Your task to perform on an android device: How much does a 3 bedroom apartment rent for in Chicago? Image 0: 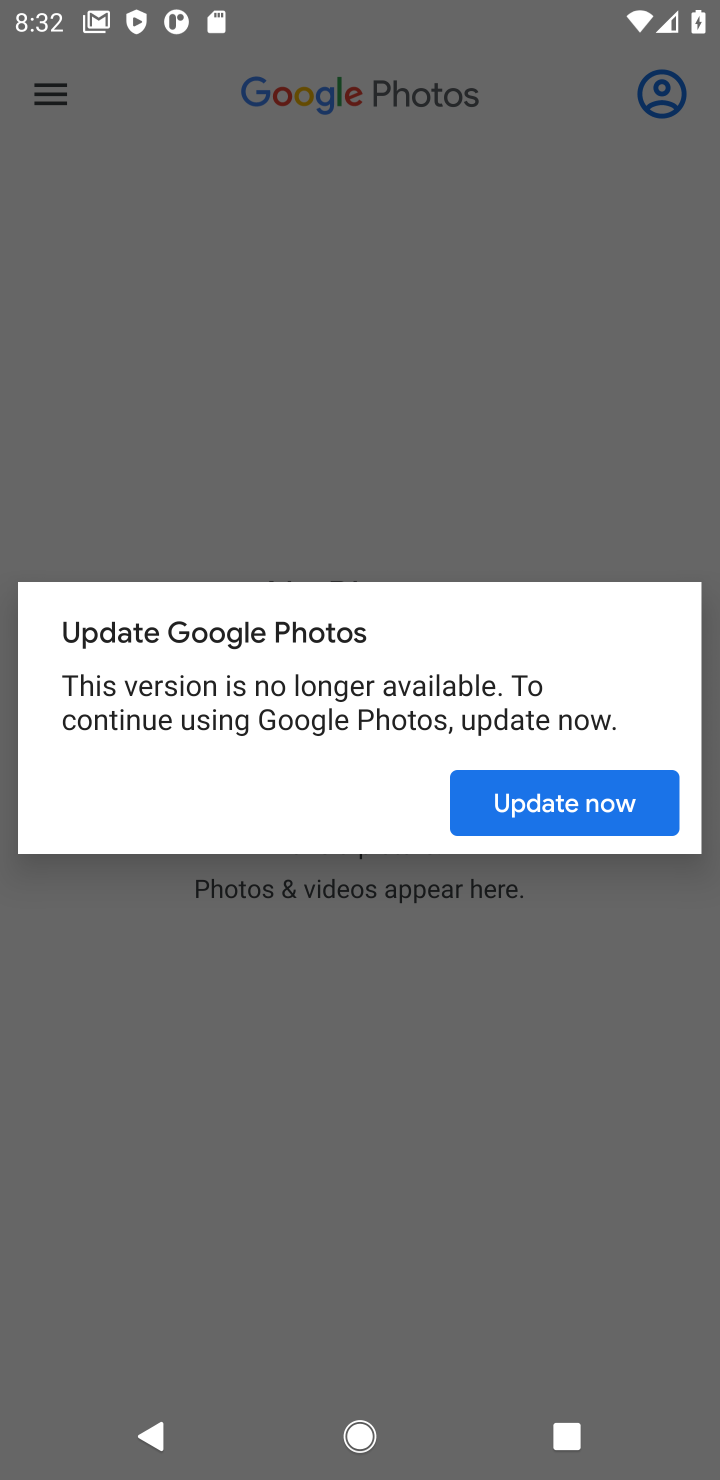
Step 0: press home button
Your task to perform on an android device: How much does a 3 bedroom apartment rent for in Chicago? Image 1: 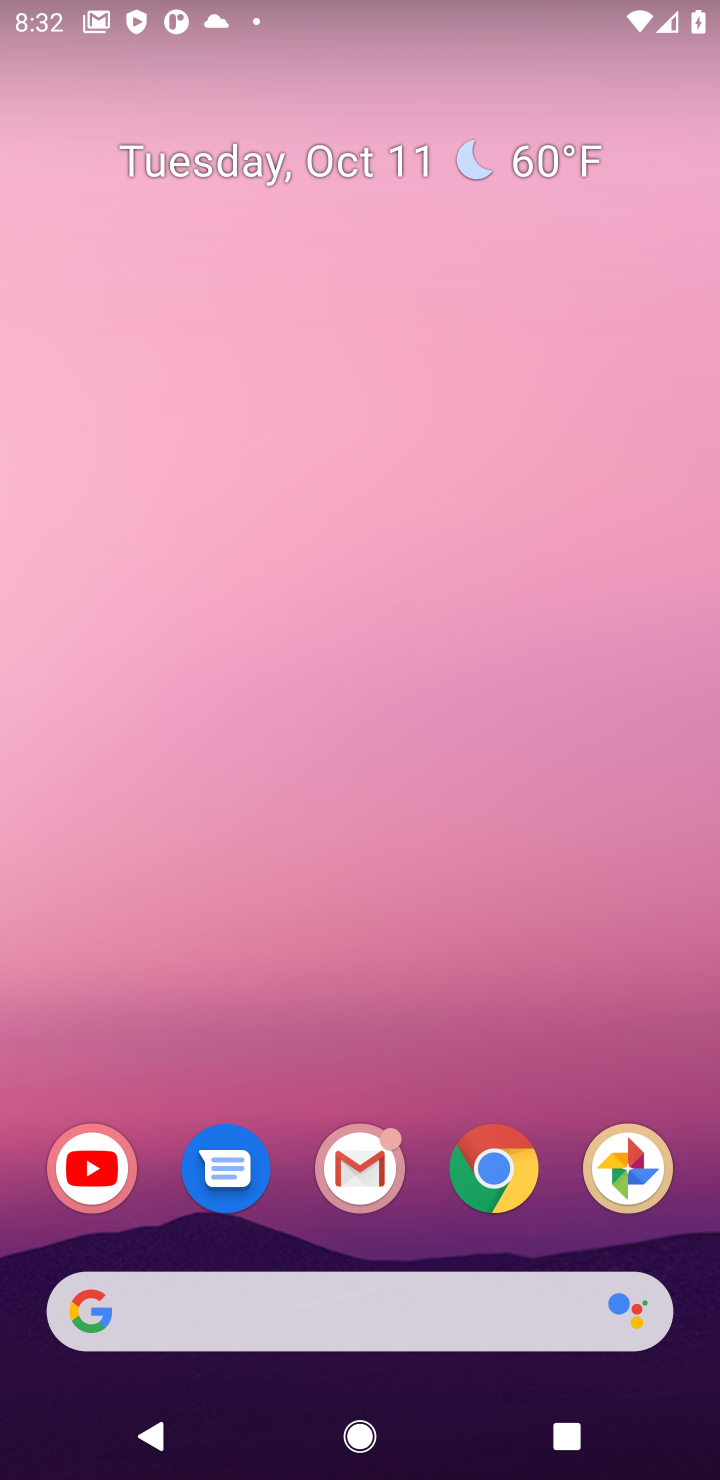
Step 1: click (502, 1166)
Your task to perform on an android device: How much does a 3 bedroom apartment rent for in Chicago? Image 2: 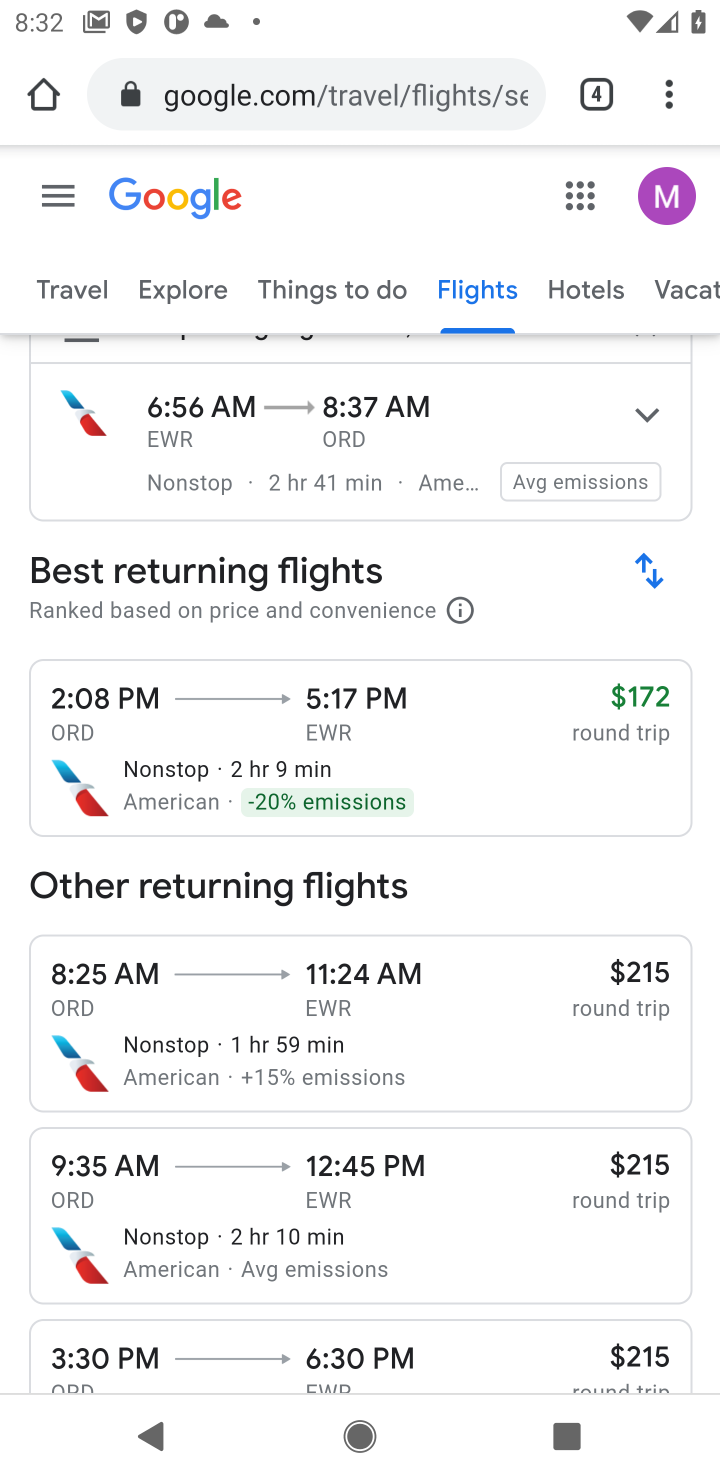
Step 2: click (346, 89)
Your task to perform on an android device: How much does a 3 bedroom apartment rent for in Chicago? Image 3: 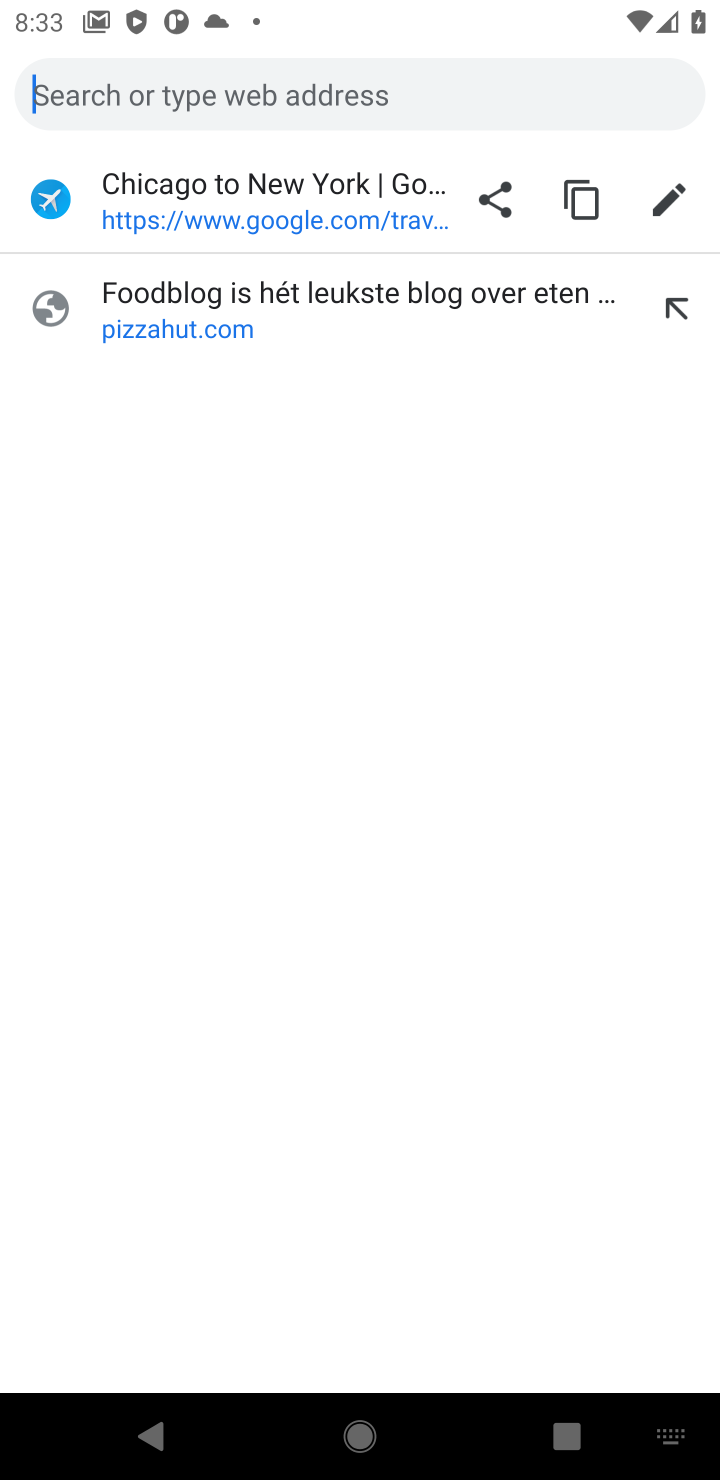
Step 3: type "3 bed room apartment rent for in chicago"
Your task to perform on an android device: How much does a 3 bedroom apartment rent for in Chicago? Image 4: 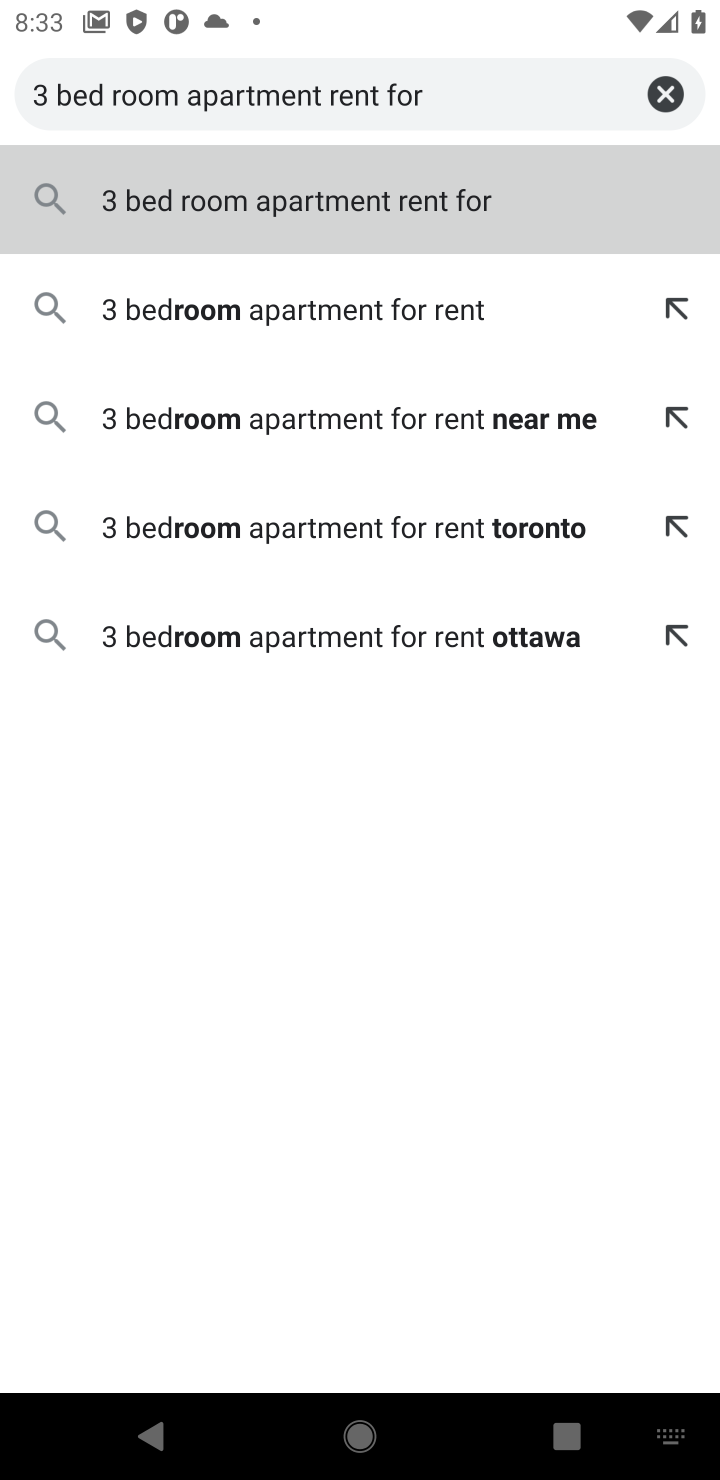
Step 4: click (385, 308)
Your task to perform on an android device: How much does a 3 bedroom apartment rent for in Chicago? Image 5: 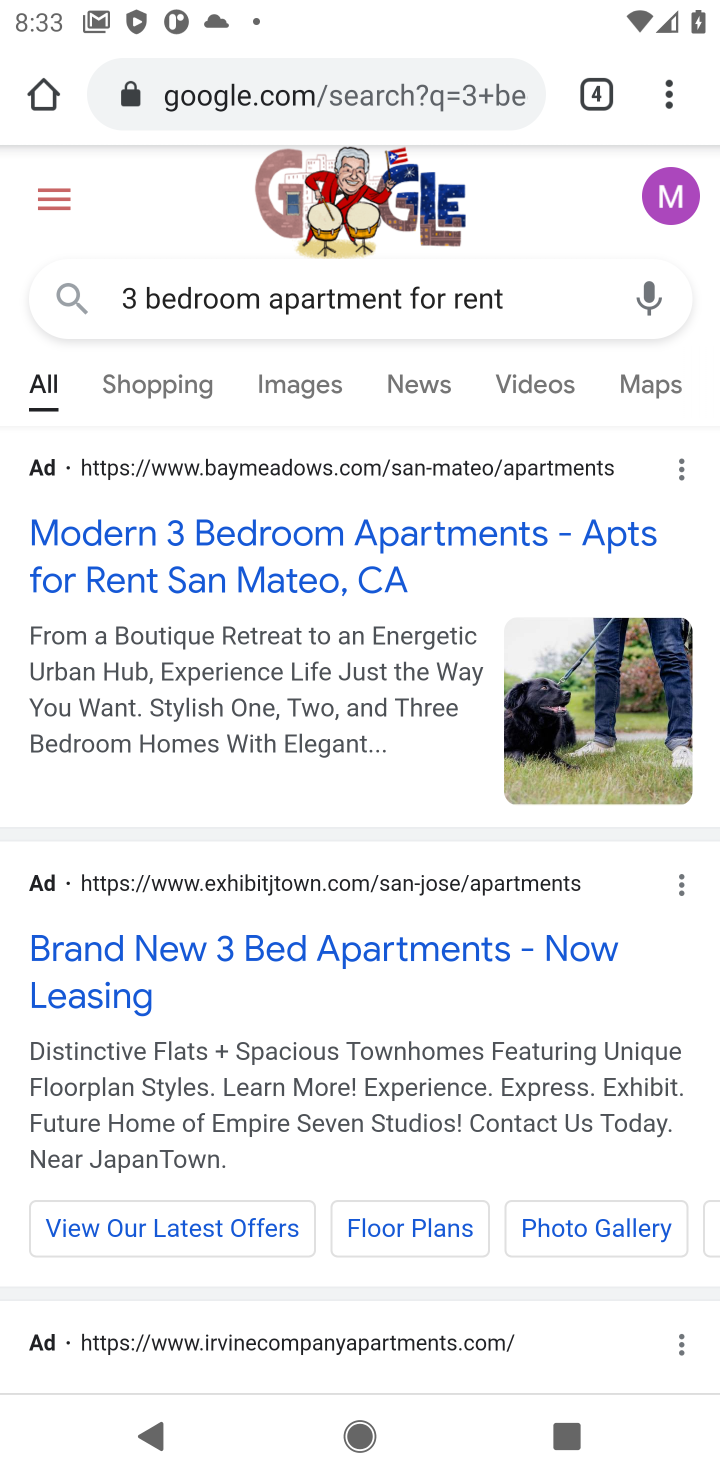
Step 5: drag from (430, 948) to (465, 81)
Your task to perform on an android device: How much does a 3 bedroom apartment rent for in Chicago? Image 6: 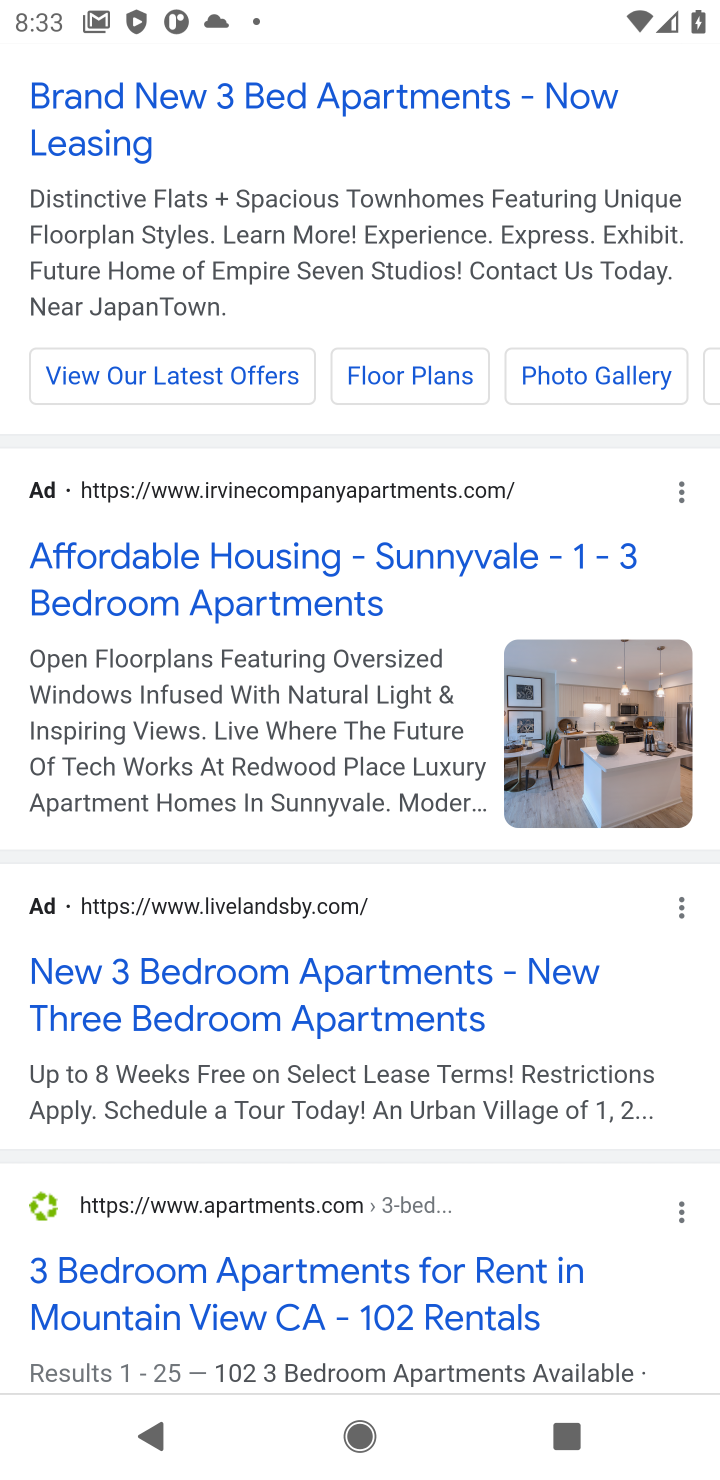
Step 6: click (258, 977)
Your task to perform on an android device: How much does a 3 bedroom apartment rent for in Chicago? Image 7: 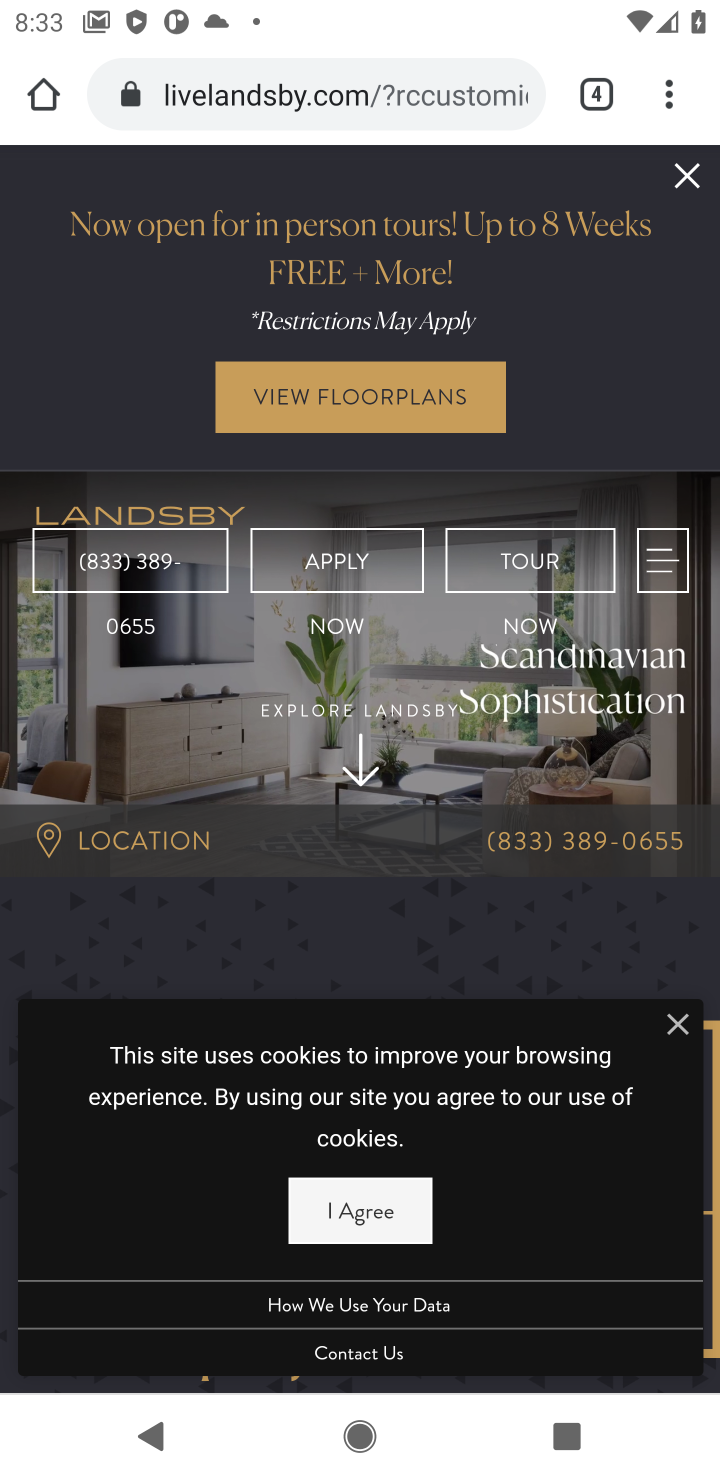
Step 7: click (674, 1041)
Your task to perform on an android device: How much does a 3 bedroom apartment rent for in Chicago? Image 8: 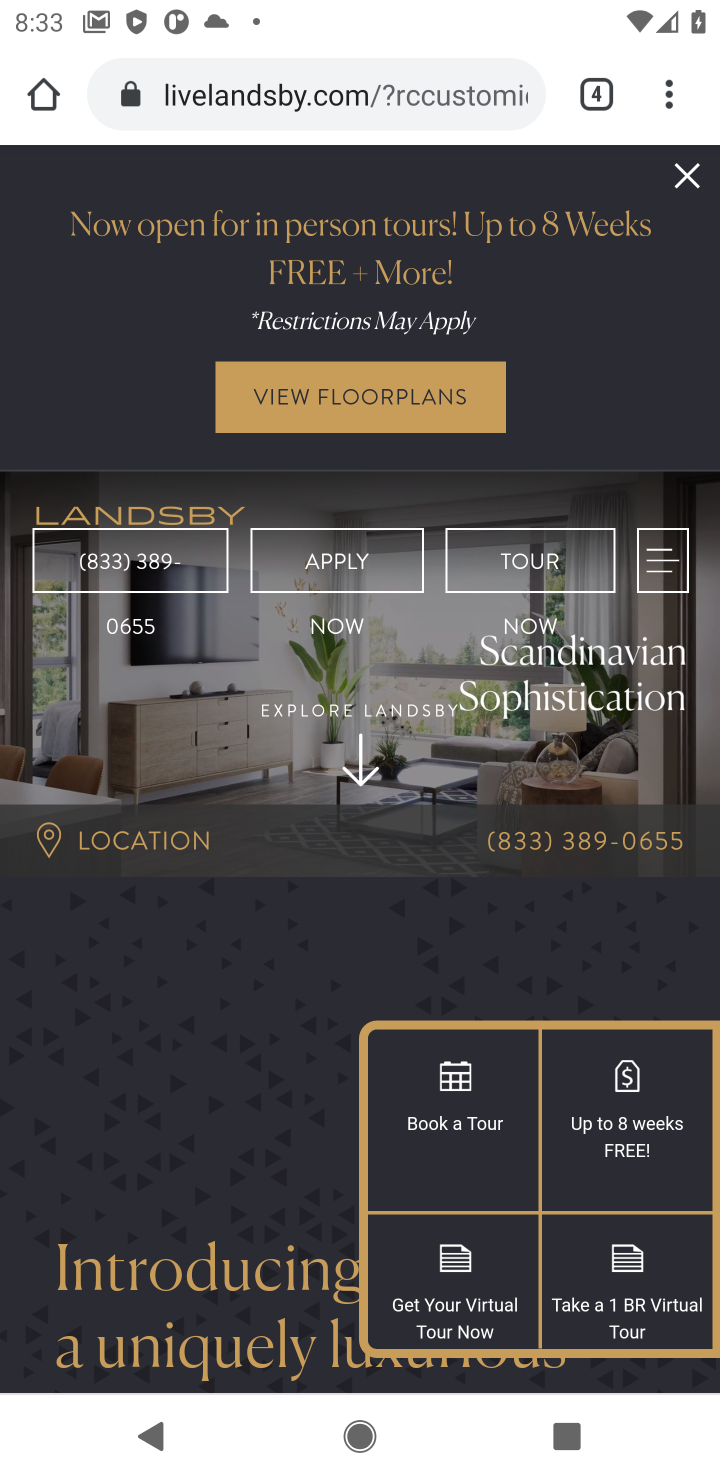
Step 8: drag from (259, 757) to (341, 313)
Your task to perform on an android device: How much does a 3 bedroom apartment rent for in Chicago? Image 9: 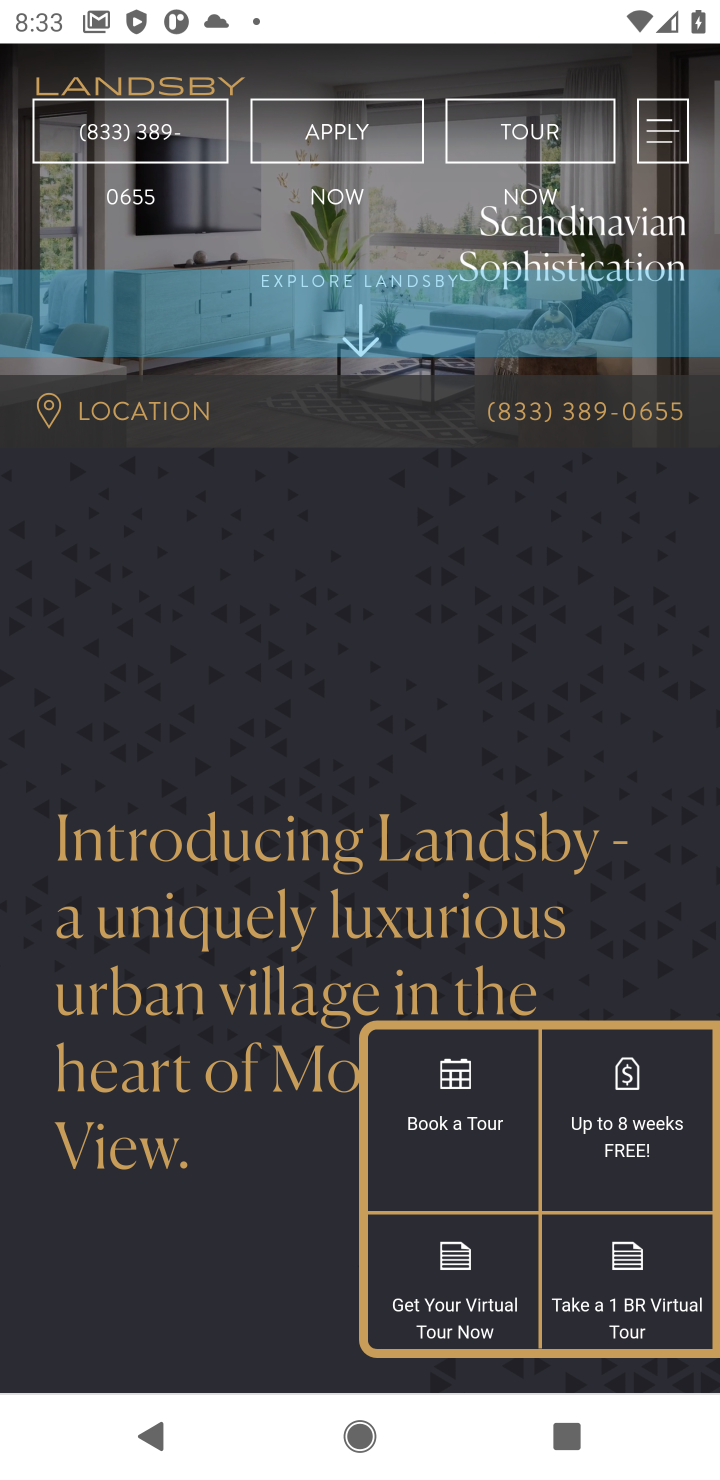
Step 9: click (694, 178)
Your task to perform on an android device: How much does a 3 bedroom apartment rent for in Chicago? Image 10: 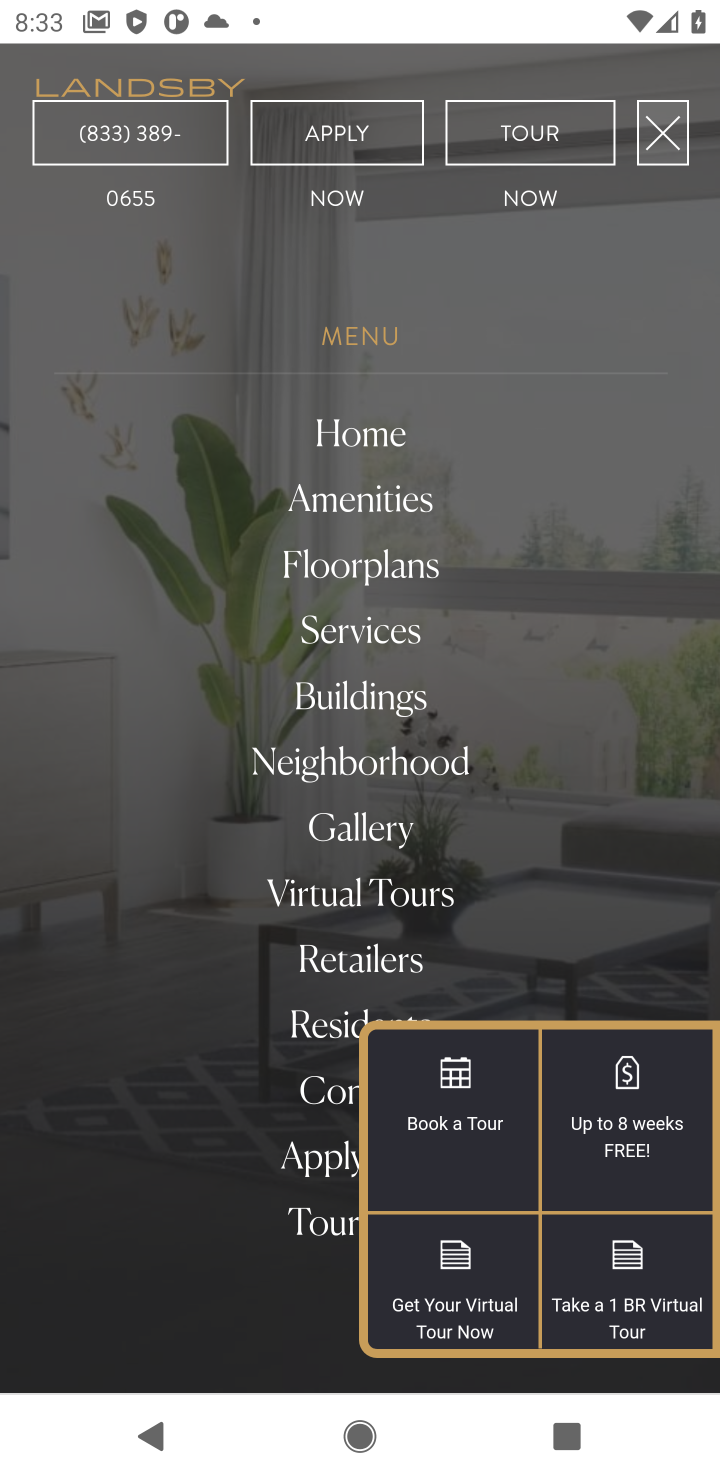
Step 10: drag from (257, 967) to (322, 398)
Your task to perform on an android device: How much does a 3 bedroom apartment rent for in Chicago? Image 11: 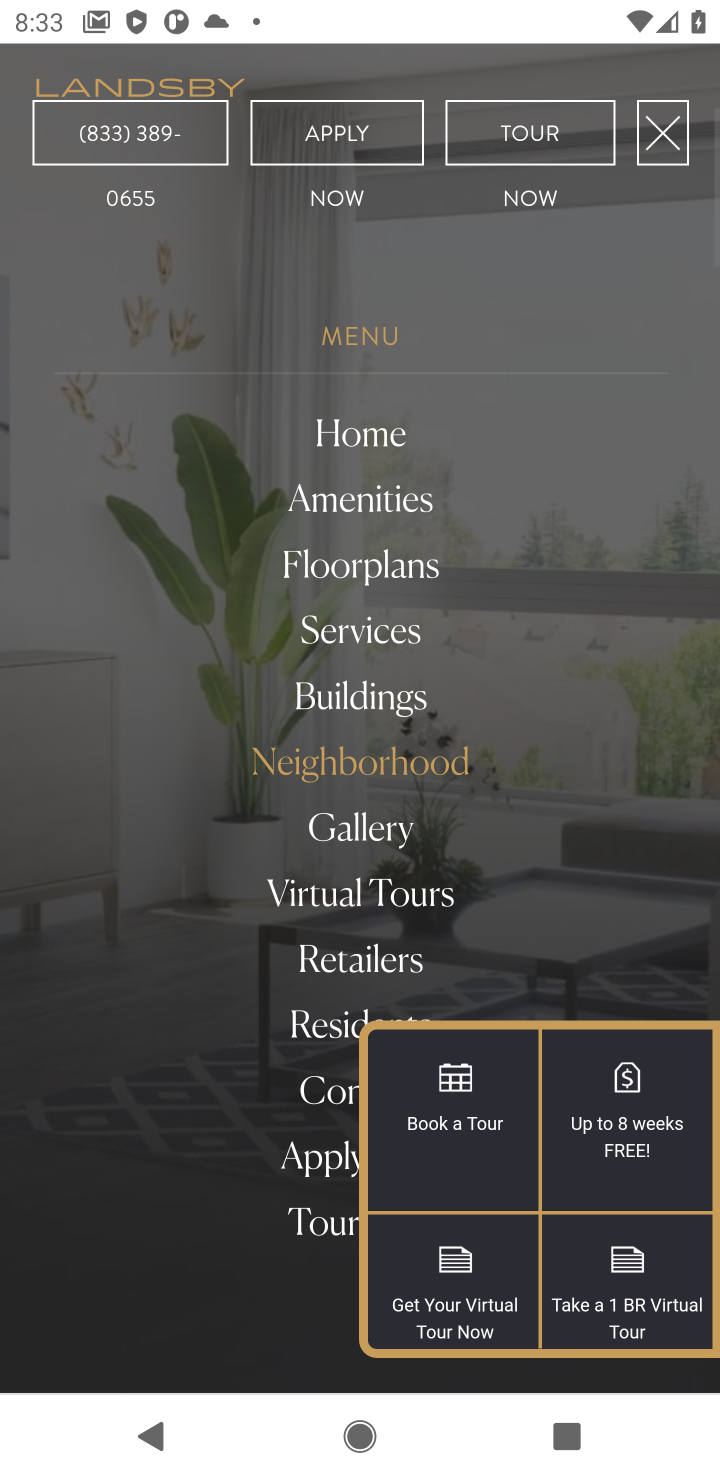
Step 11: drag from (679, 693) to (679, 420)
Your task to perform on an android device: How much does a 3 bedroom apartment rent for in Chicago? Image 12: 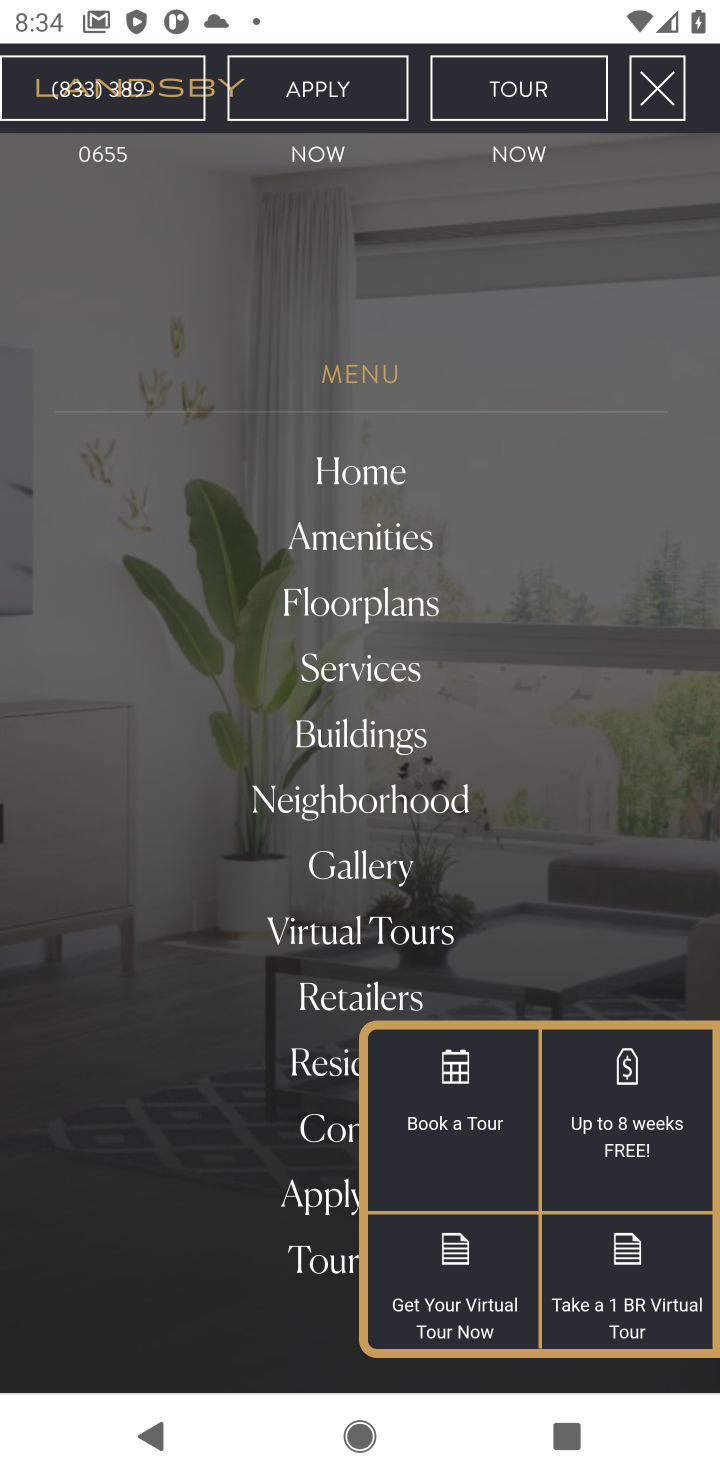
Step 12: drag from (2, 974) to (41, 445)
Your task to perform on an android device: How much does a 3 bedroom apartment rent for in Chicago? Image 13: 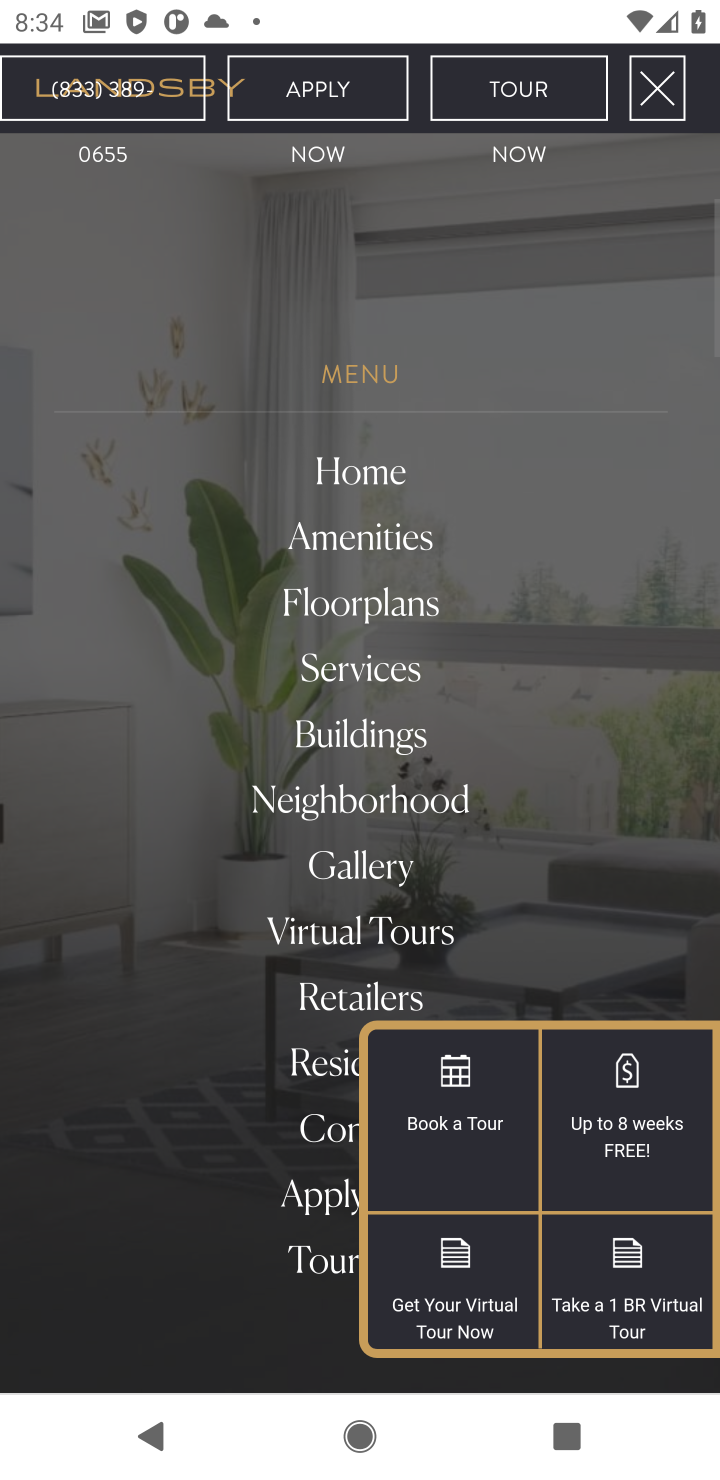
Step 13: click (411, 479)
Your task to perform on an android device: How much does a 3 bedroom apartment rent for in Chicago? Image 14: 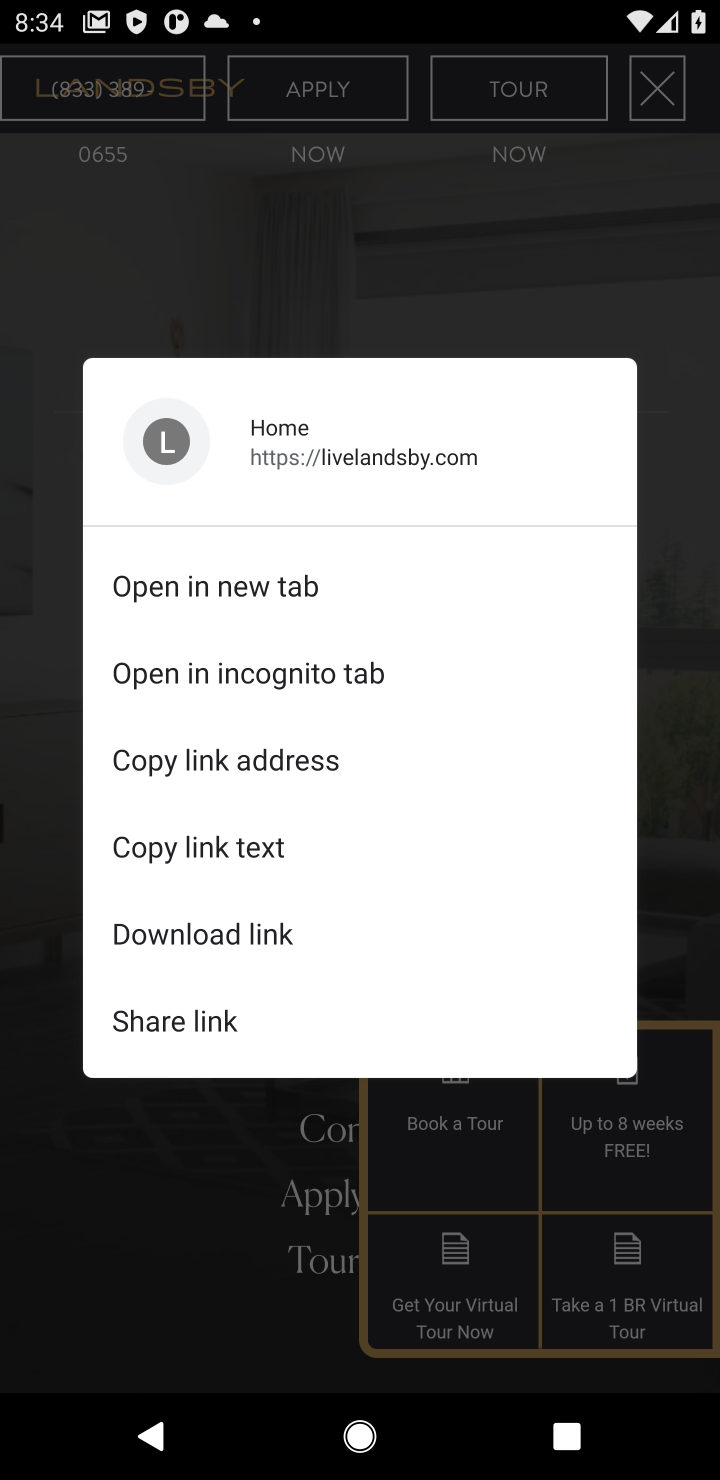
Step 14: click (268, 581)
Your task to perform on an android device: How much does a 3 bedroom apartment rent for in Chicago? Image 15: 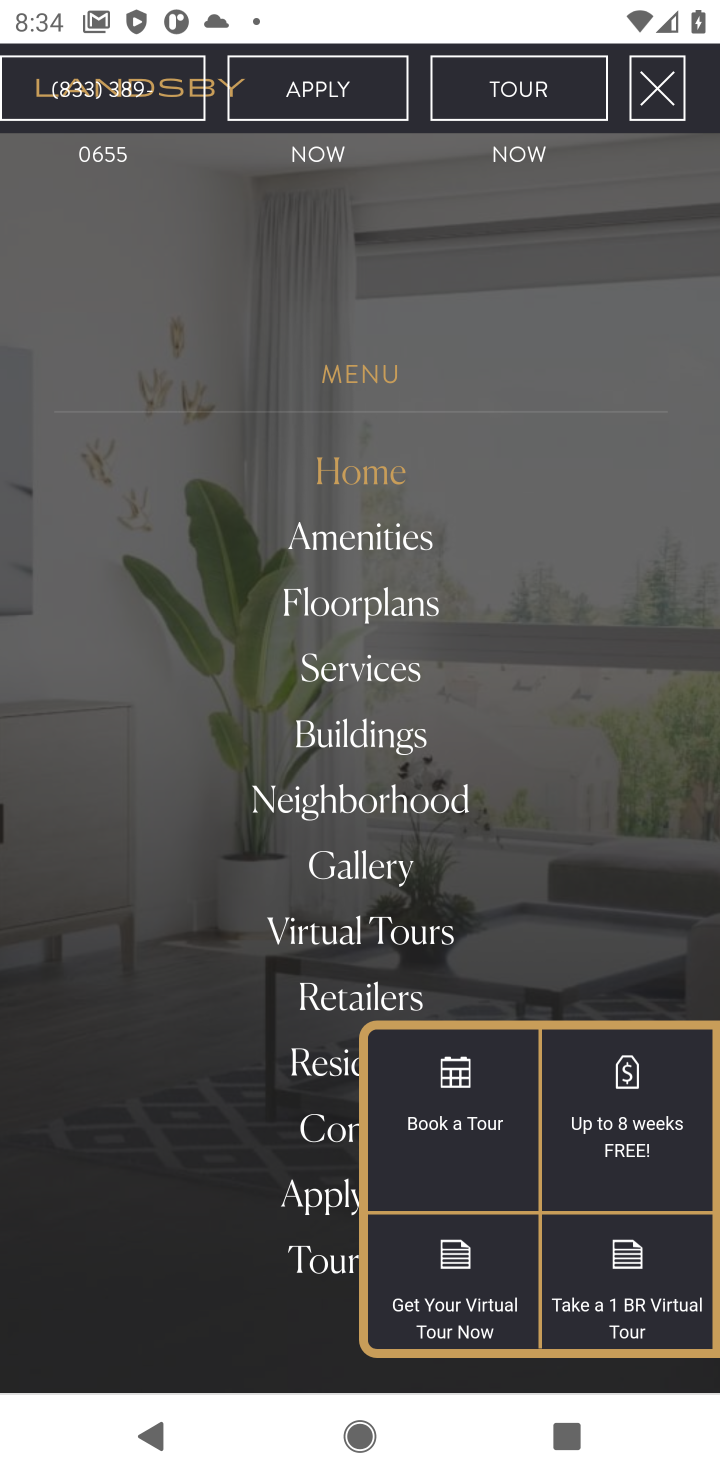
Step 15: click (643, 94)
Your task to perform on an android device: How much does a 3 bedroom apartment rent for in Chicago? Image 16: 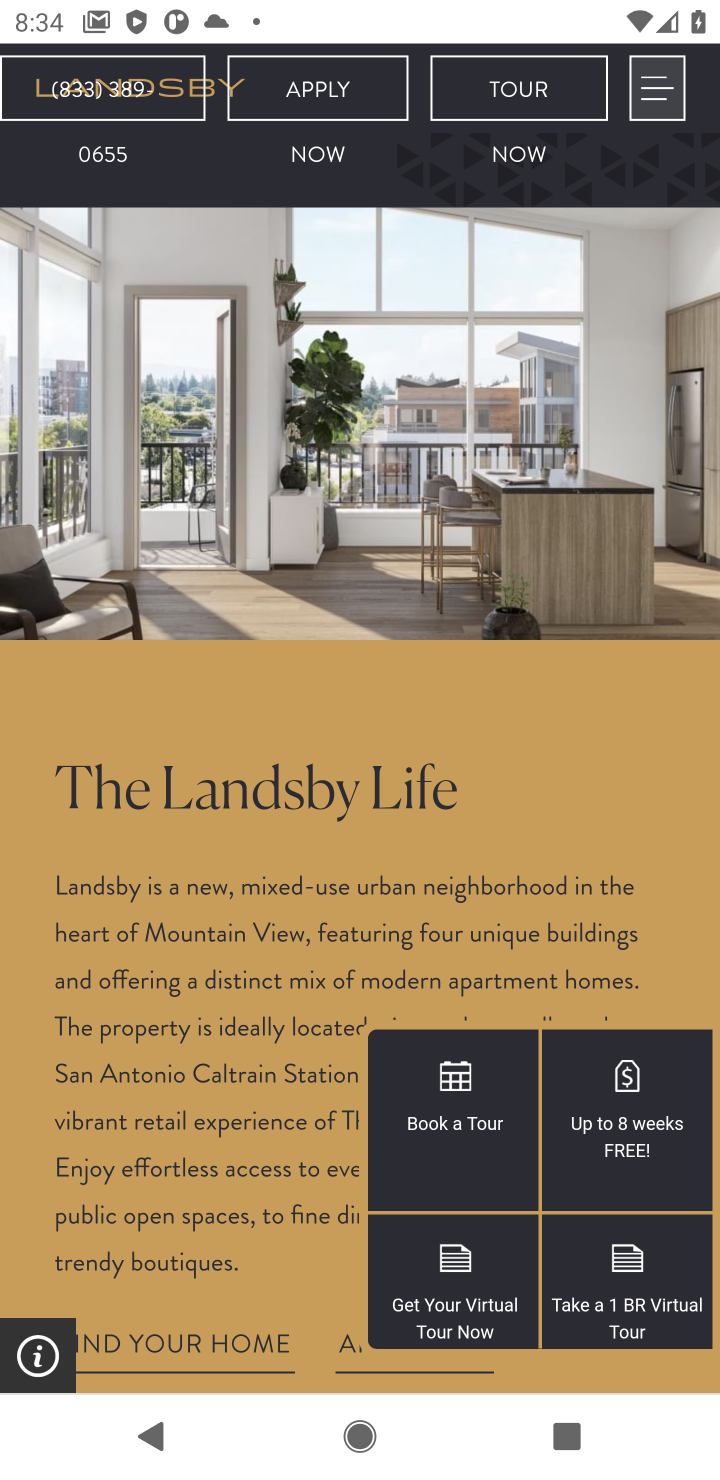
Step 16: press back button
Your task to perform on an android device: How much does a 3 bedroom apartment rent for in Chicago? Image 17: 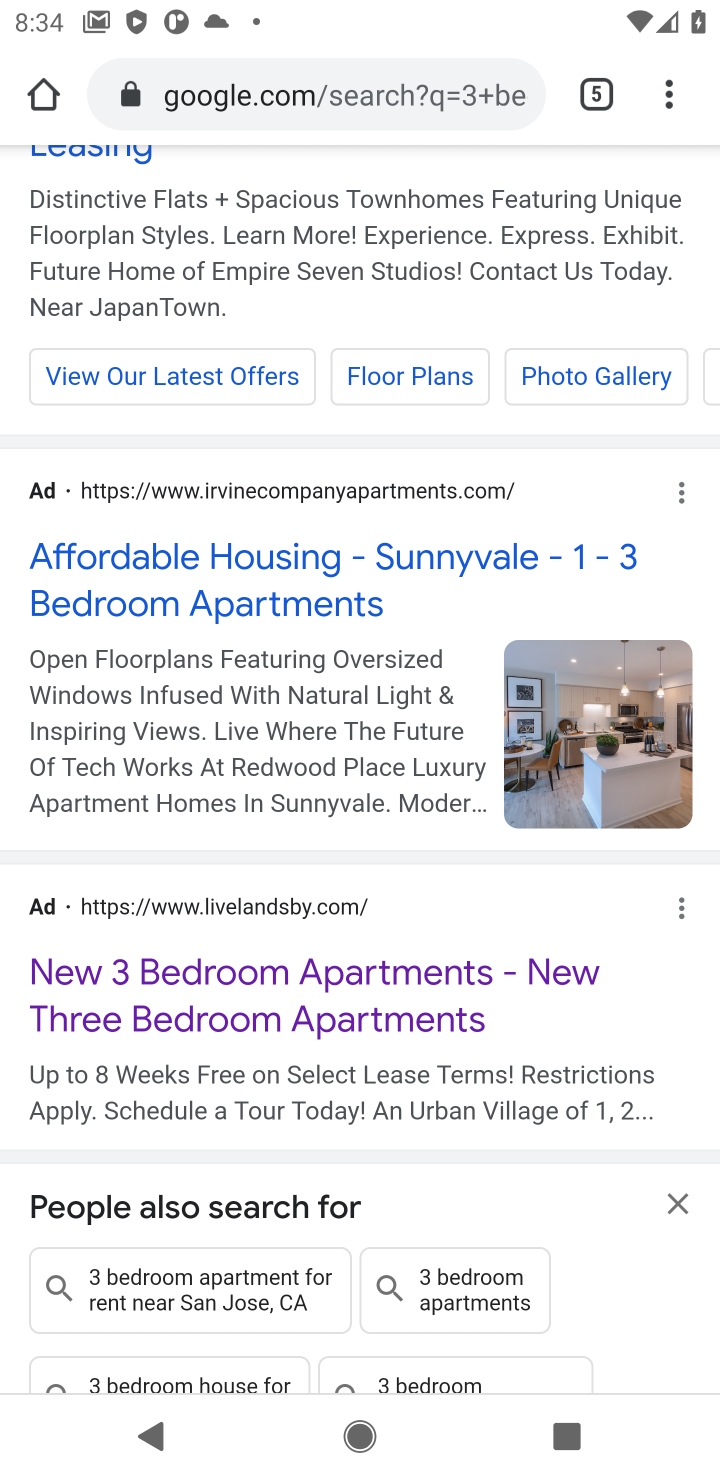
Step 17: click (278, 102)
Your task to perform on an android device: How much does a 3 bedroom apartment rent for in Chicago? Image 18: 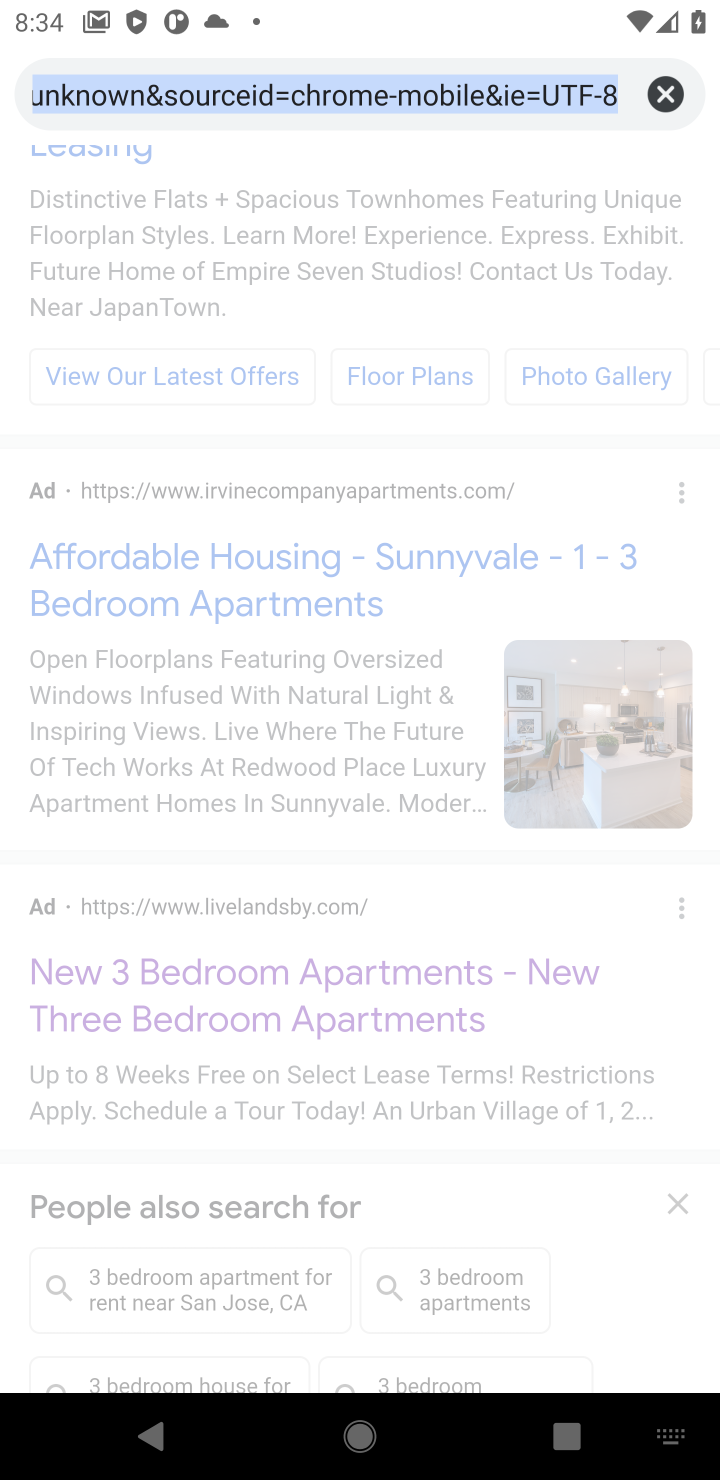
Step 18: type "3 bedroom apartment in chicago "
Your task to perform on an android device: How much does a 3 bedroom apartment rent for in Chicago? Image 19: 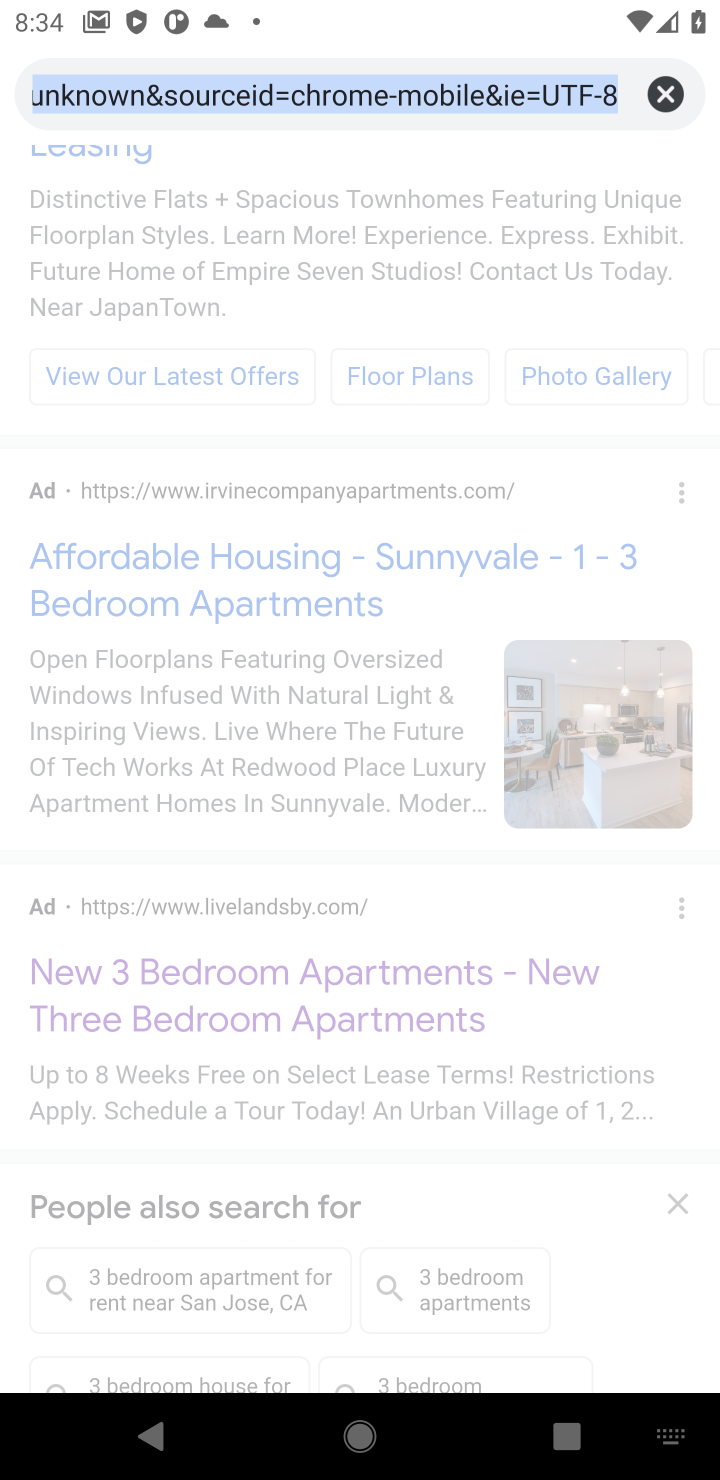
Step 19: click (662, 102)
Your task to perform on an android device: How much does a 3 bedroom apartment rent for in Chicago? Image 20: 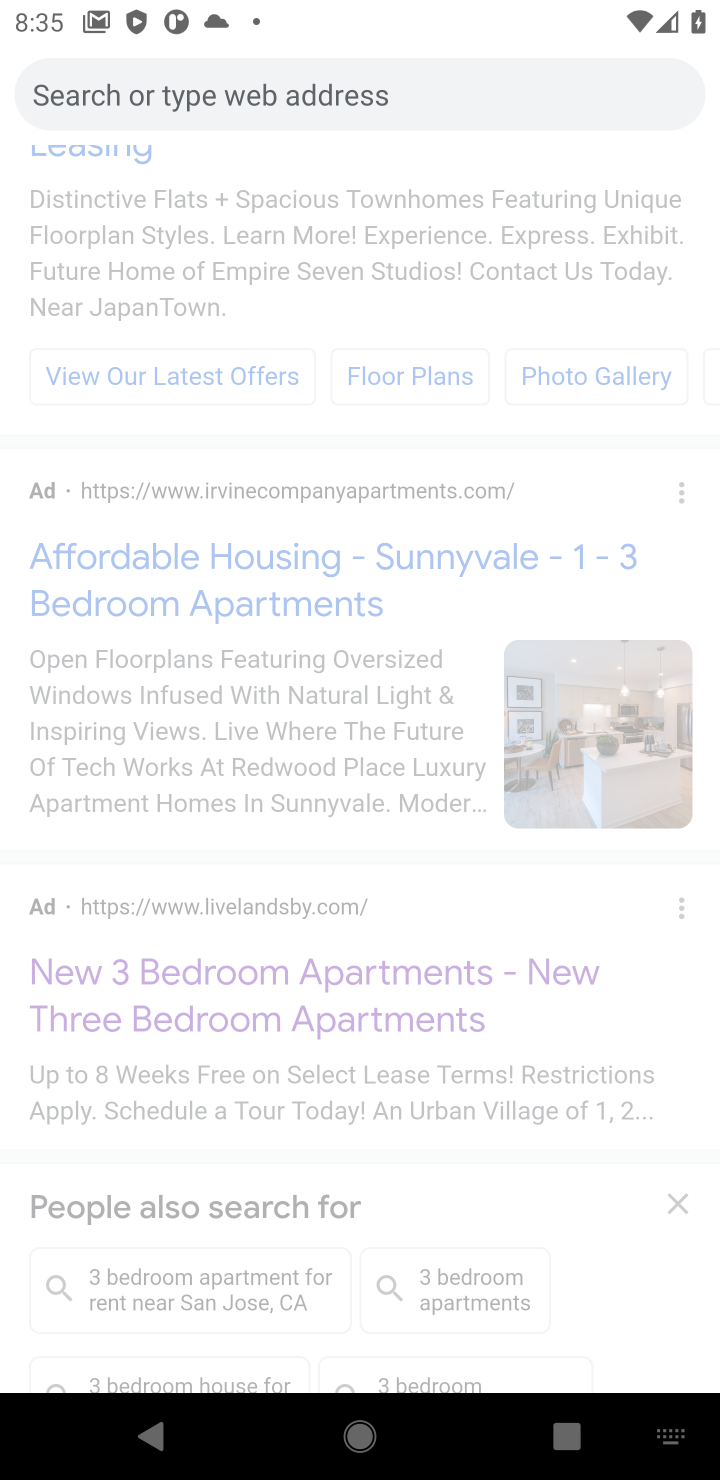
Step 20: type "3 bedroom apartment irent in chicago"
Your task to perform on an android device: How much does a 3 bedroom apartment rent for in Chicago? Image 21: 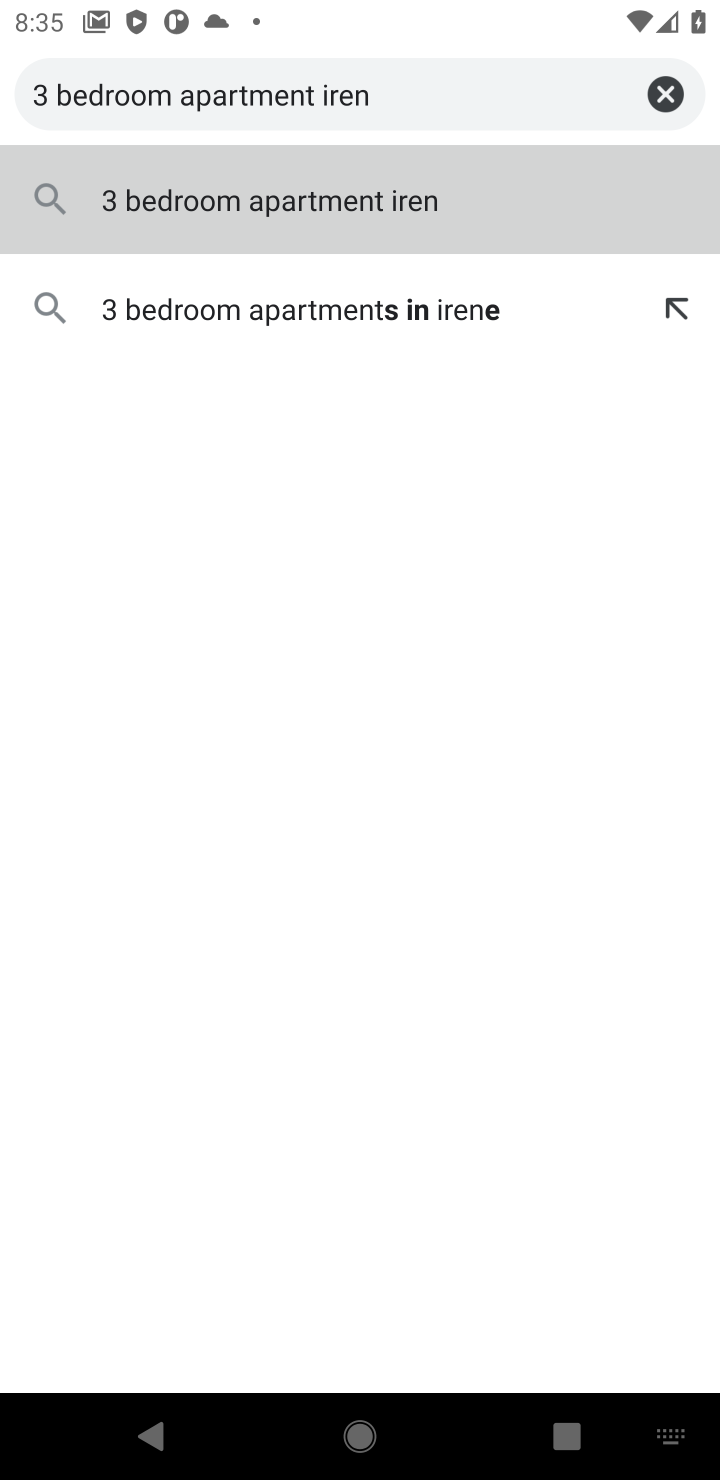
Step 21: type ""
Your task to perform on an android device: How much does a 3 bedroom apartment rent for in Chicago? Image 22: 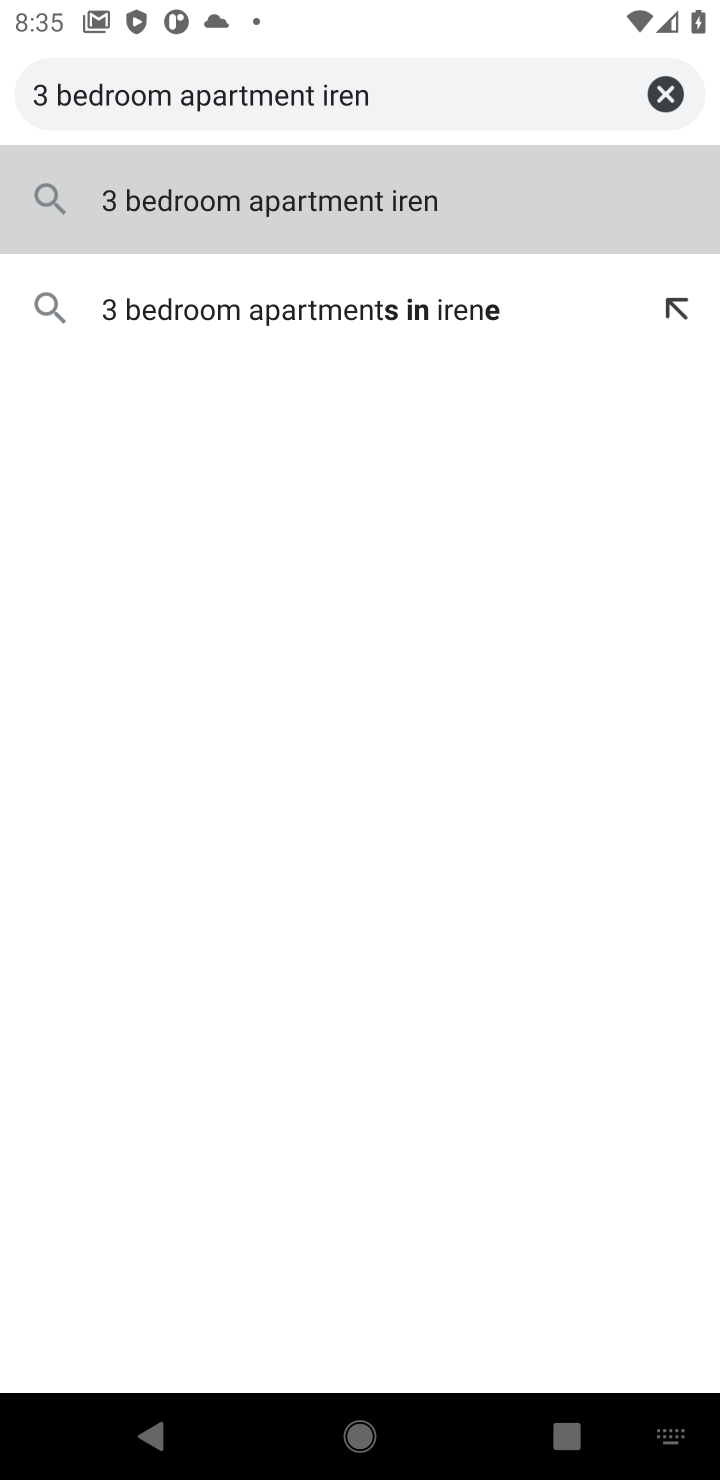
Step 22: click (162, 193)
Your task to perform on an android device: How much does a 3 bedroom apartment rent for in Chicago? Image 23: 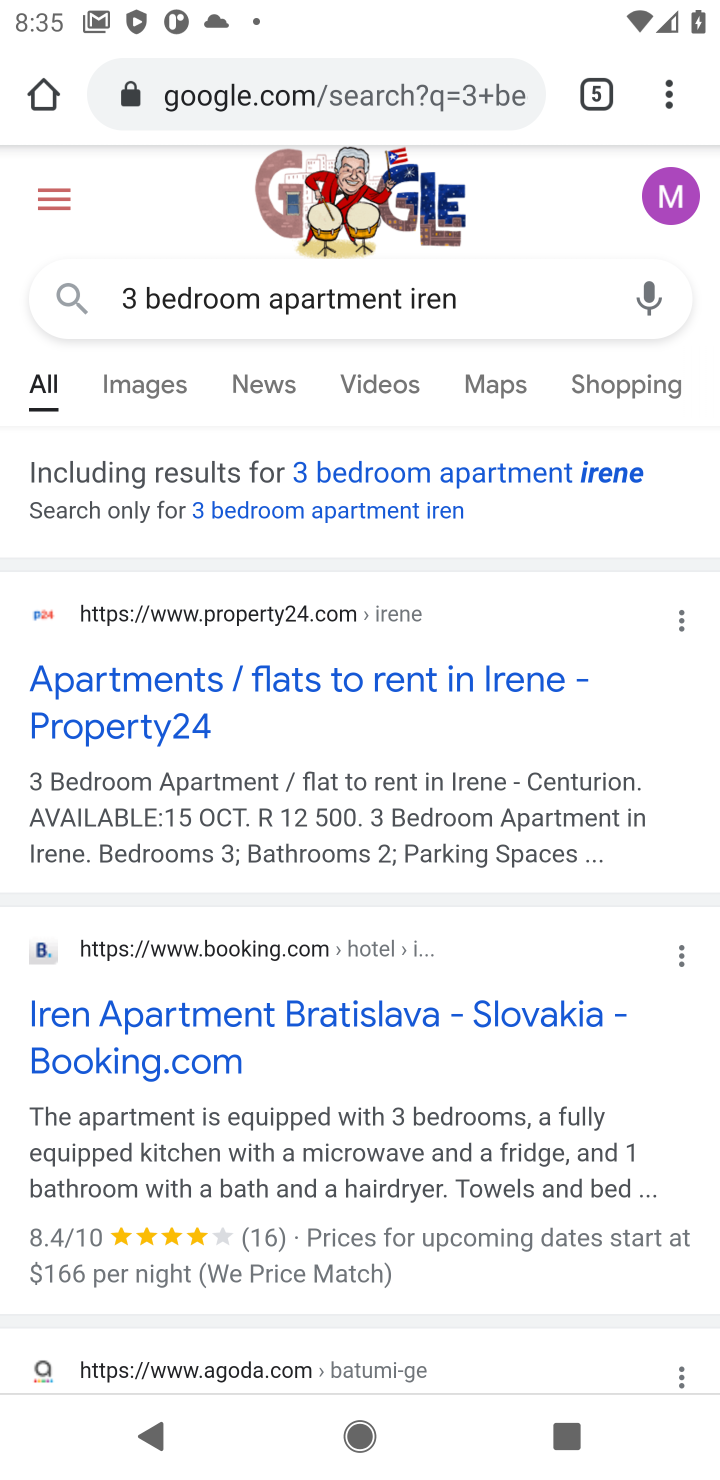
Step 23: task complete